Your task to perform on an android device: What is the news today? Image 0: 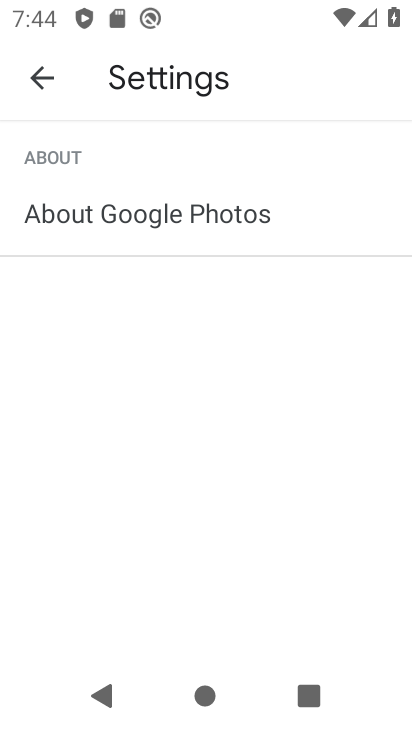
Step 0: press home button
Your task to perform on an android device: What is the news today? Image 1: 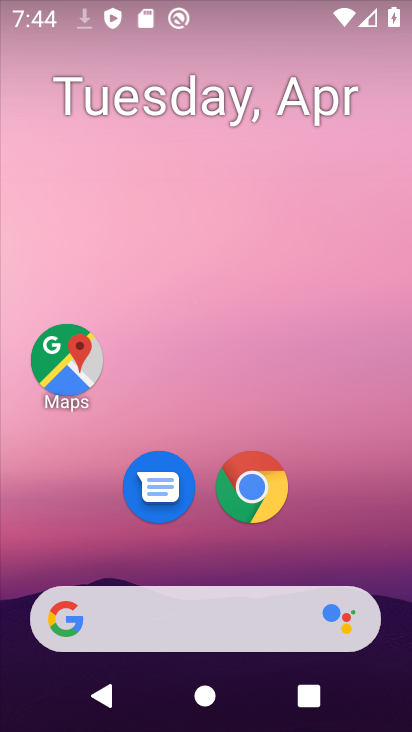
Step 1: drag from (187, 479) to (238, 133)
Your task to perform on an android device: What is the news today? Image 2: 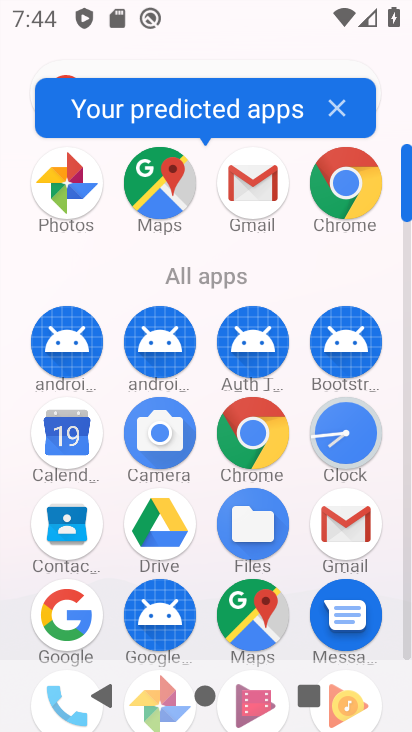
Step 2: click (57, 617)
Your task to perform on an android device: What is the news today? Image 3: 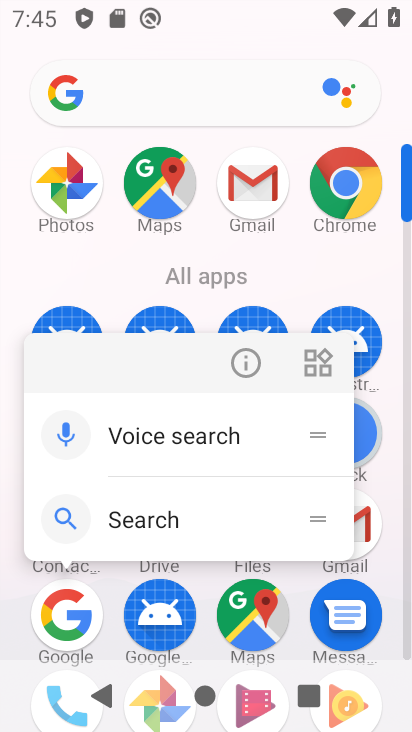
Step 3: click (11, 310)
Your task to perform on an android device: What is the news today? Image 4: 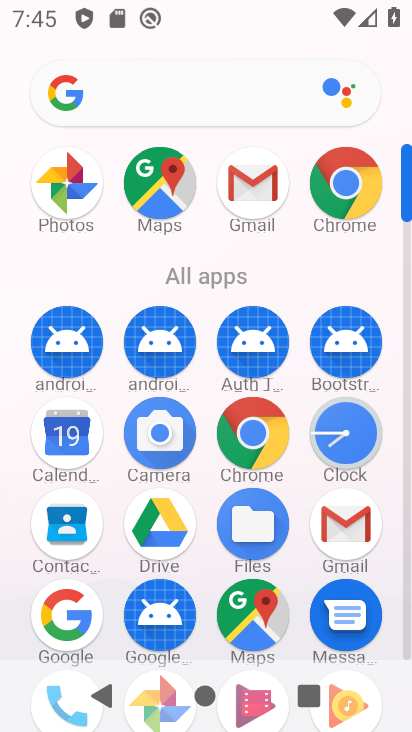
Step 4: click (12, 315)
Your task to perform on an android device: What is the news today? Image 5: 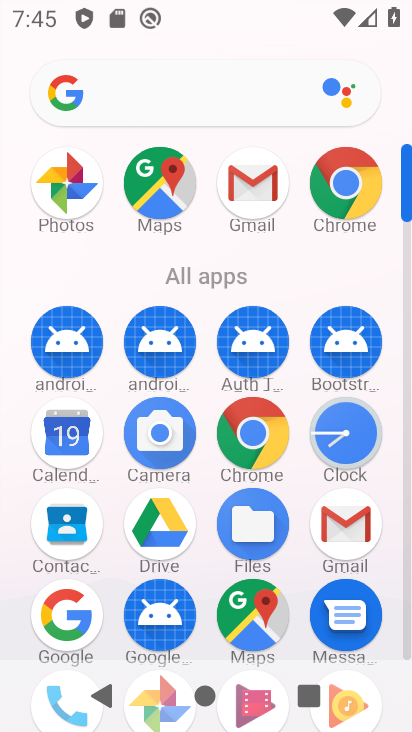
Step 5: click (72, 617)
Your task to perform on an android device: What is the news today? Image 6: 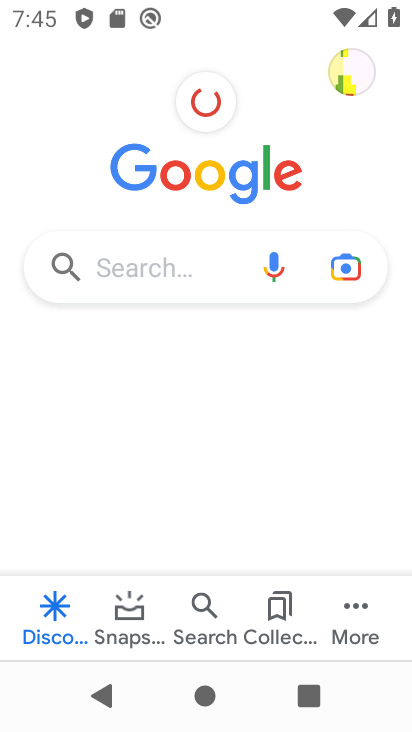
Step 6: click (151, 269)
Your task to perform on an android device: What is the news today? Image 7: 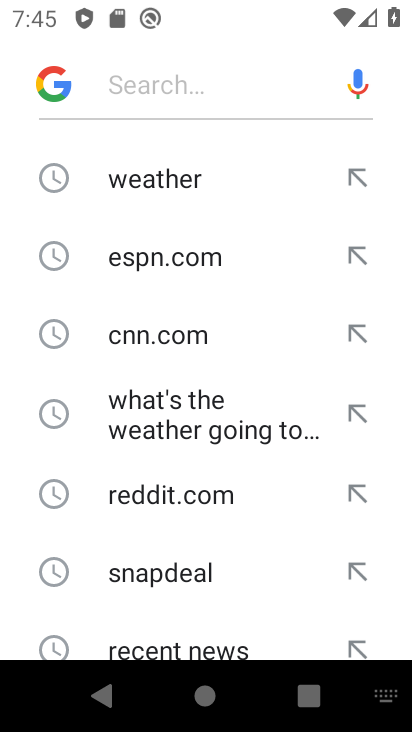
Step 7: type "what is the news today?"
Your task to perform on an android device: What is the news today? Image 8: 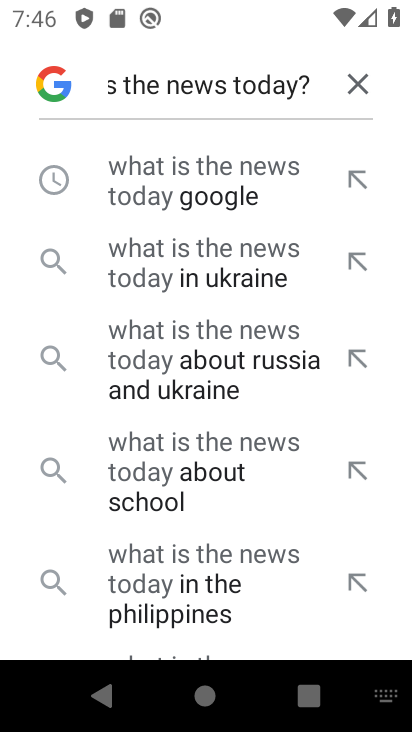
Step 8: click (153, 172)
Your task to perform on an android device: What is the news today? Image 9: 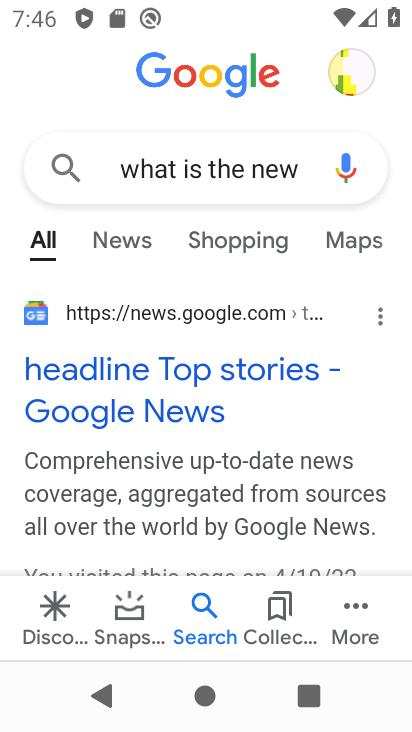
Step 9: task complete